Your task to perform on an android device: Check the news Image 0: 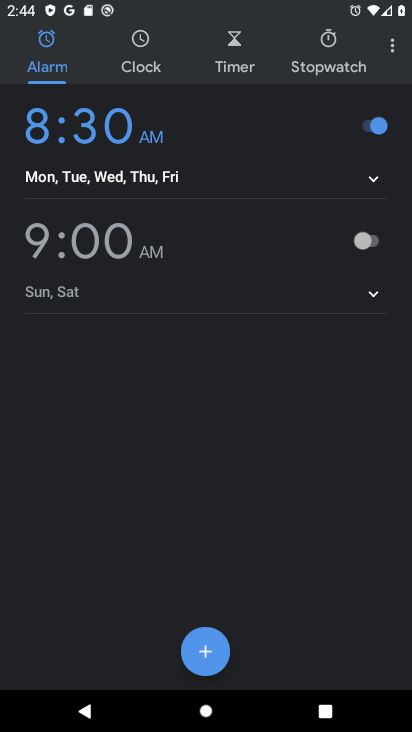
Step 0: drag from (206, 632) to (181, 307)
Your task to perform on an android device: Check the news Image 1: 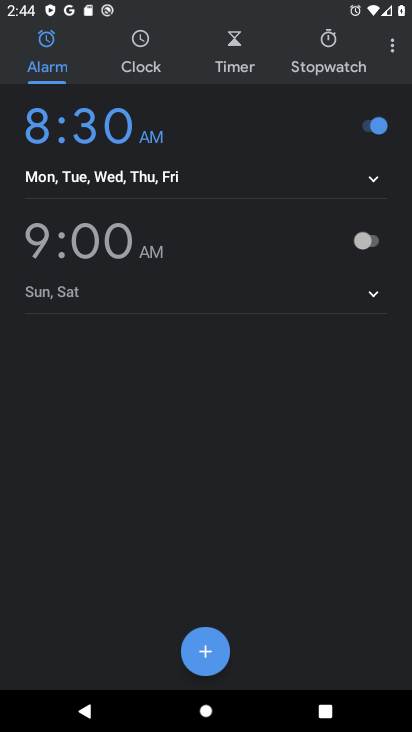
Step 1: task complete